Your task to perform on an android device: What is the recent news? Image 0: 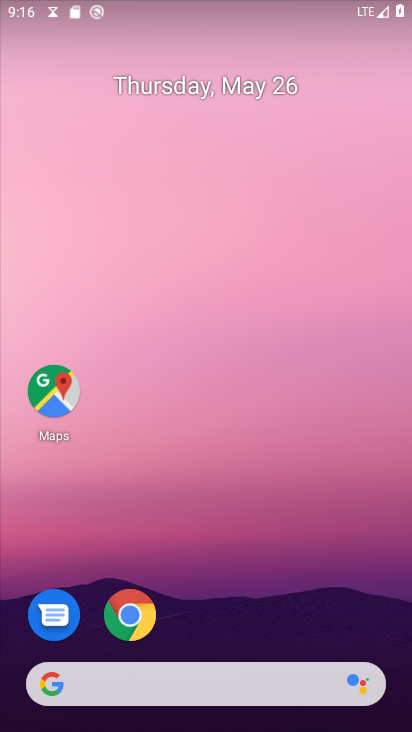
Step 0: drag from (224, 616) to (237, 166)
Your task to perform on an android device: What is the recent news? Image 1: 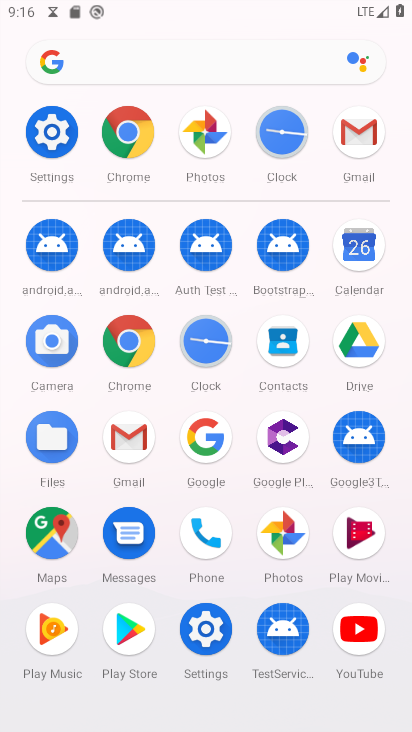
Step 1: click (130, 122)
Your task to perform on an android device: What is the recent news? Image 2: 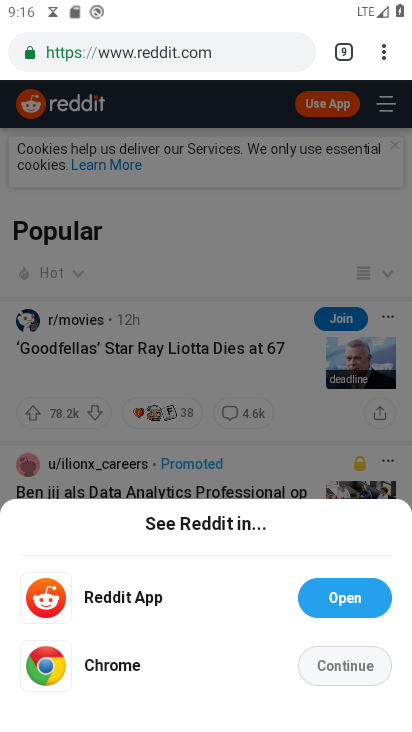
Step 2: click (378, 55)
Your task to perform on an android device: What is the recent news? Image 3: 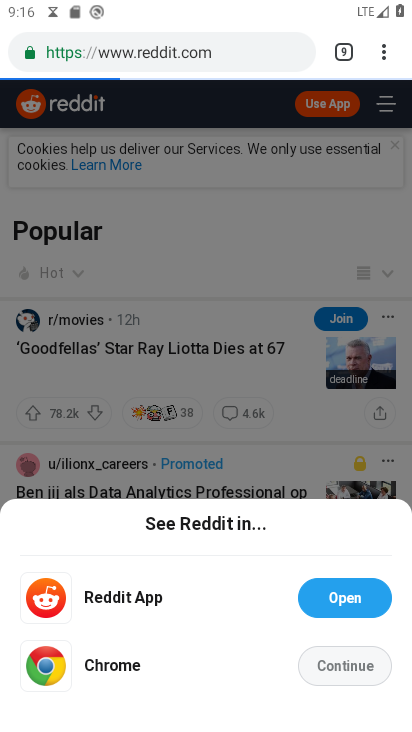
Step 3: click (386, 38)
Your task to perform on an android device: What is the recent news? Image 4: 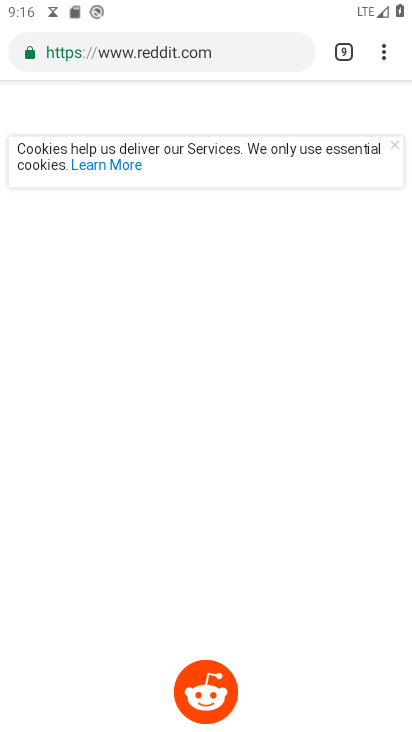
Step 4: click (382, 57)
Your task to perform on an android device: What is the recent news? Image 5: 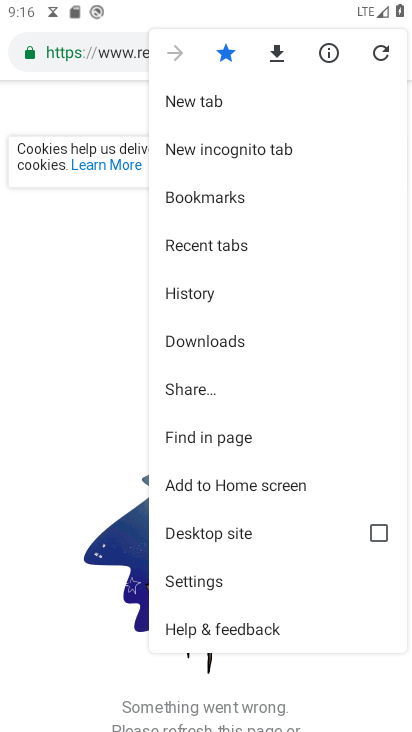
Step 5: click (216, 96)
Your task to perform on an android device: What is the recent news? Image 6: 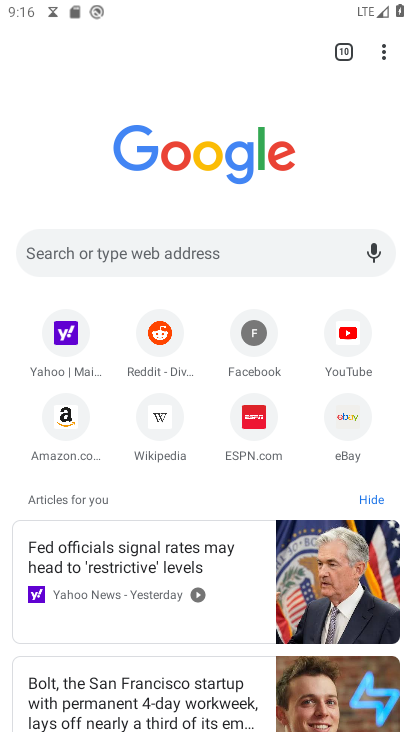
Step 6: click (176, 249)
Your task to perform on an android device: What is the recent news? Image 7: 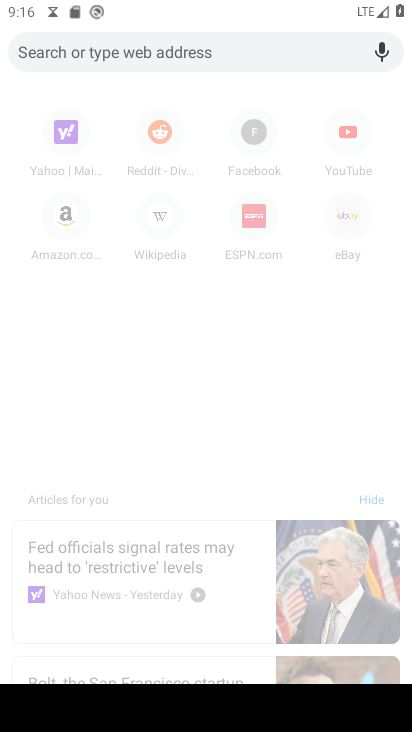
Step 7: type "What is the recent news?"
Your task to perform on an android device: What is the recent news? Image 8: 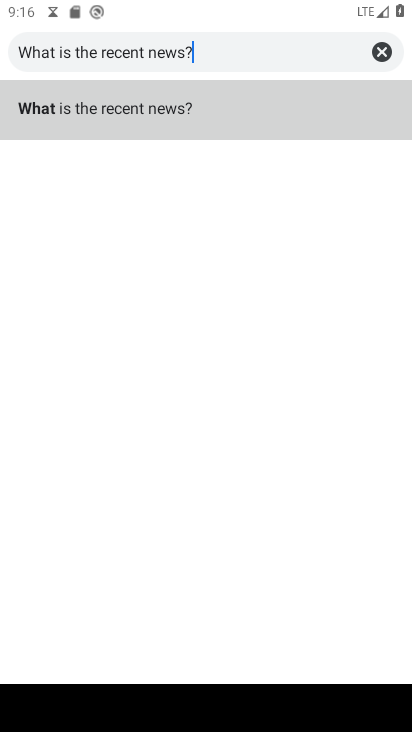
Step 8: click (153, 106)
Your task to perform on an android device: What is the recent news? Image 9: 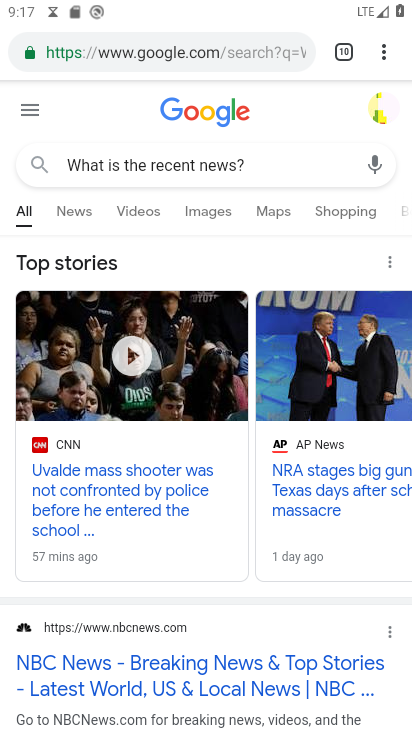
Step 9: task complete